Your task to perform on an android device: When is my next appointment? Image 0: 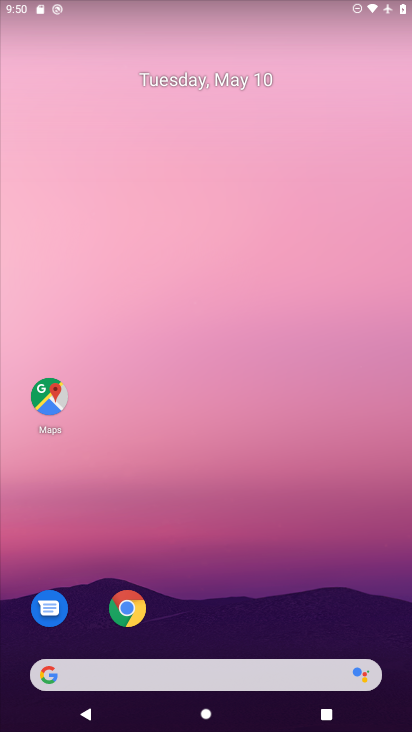
Step 0: drag from (212, 608) to (280, 197)
Your task to perform on an android device: When is my next appointment? Image 1: 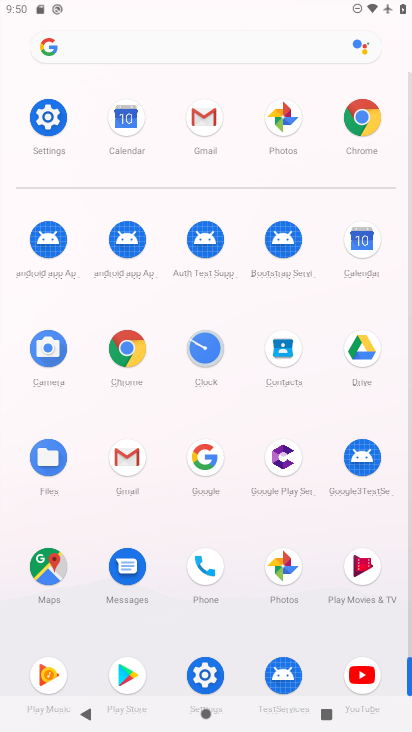
Step 1: click (358, 237)
Your task to perform on an android device: When is my next appointment? Image 2: 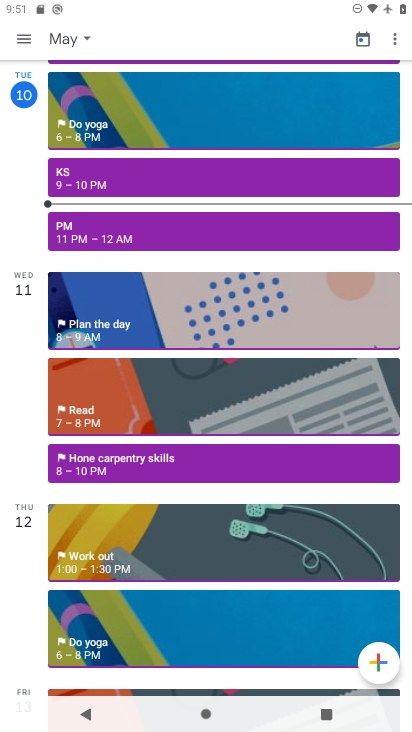
Step 2: task complete